Your task to perform on an android device: Open wifi settings Image 0: 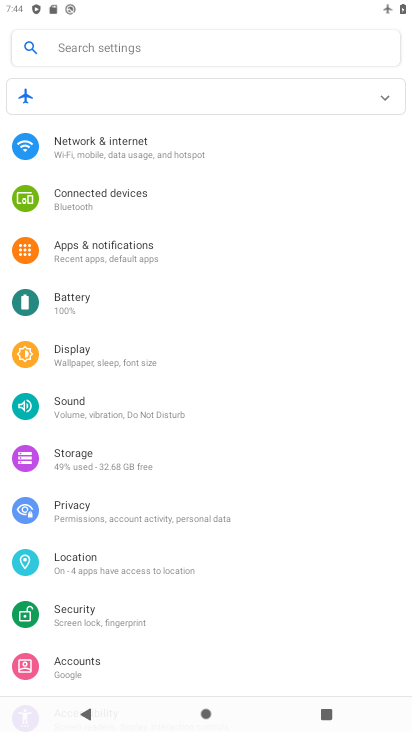
Step 0: click (58, 156)
Your task to perform on an android device: Open wifi settings Image 1: 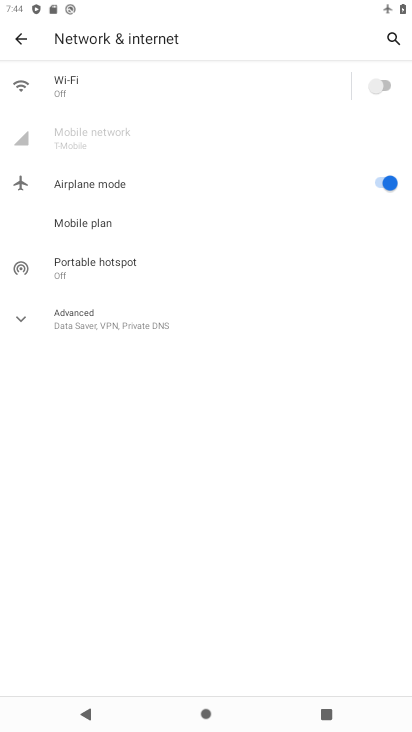
Step 1: click (55, 89)
Your task to perform on an android device: Open wifi settings Image 2: 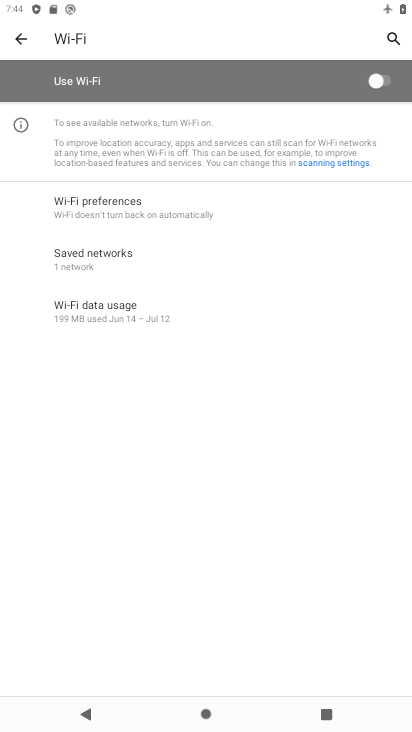
Step 2: task complete